Your task to perform on an android device: turn vacation reply on in the gmail app Image 0: 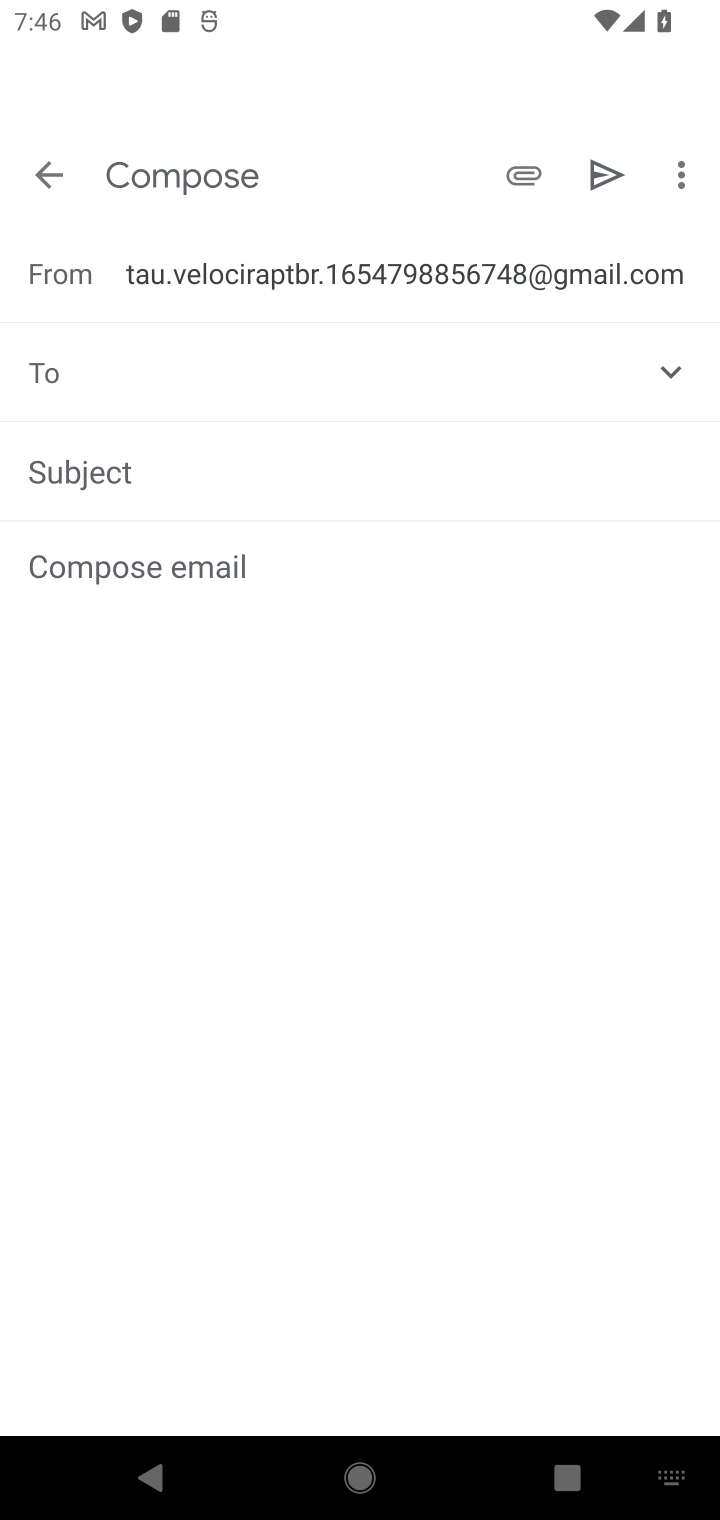
Step 0: press home button
Your task to perform on an android device: turn vacation reply on in the gmail app Image 1: 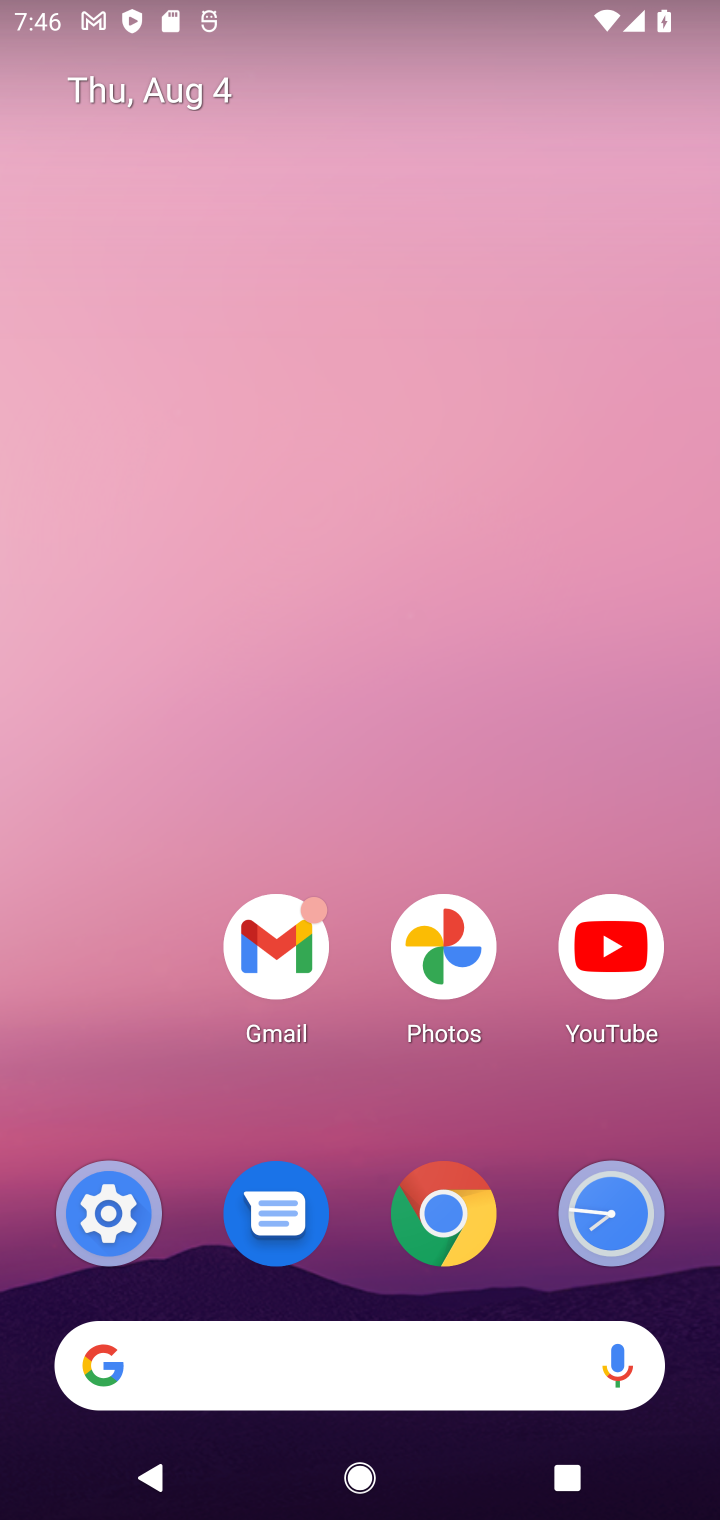
Step 1: click (97, 1197)
Your task to perform on an android device: turn vacation reply on in the gmail app Image 2: 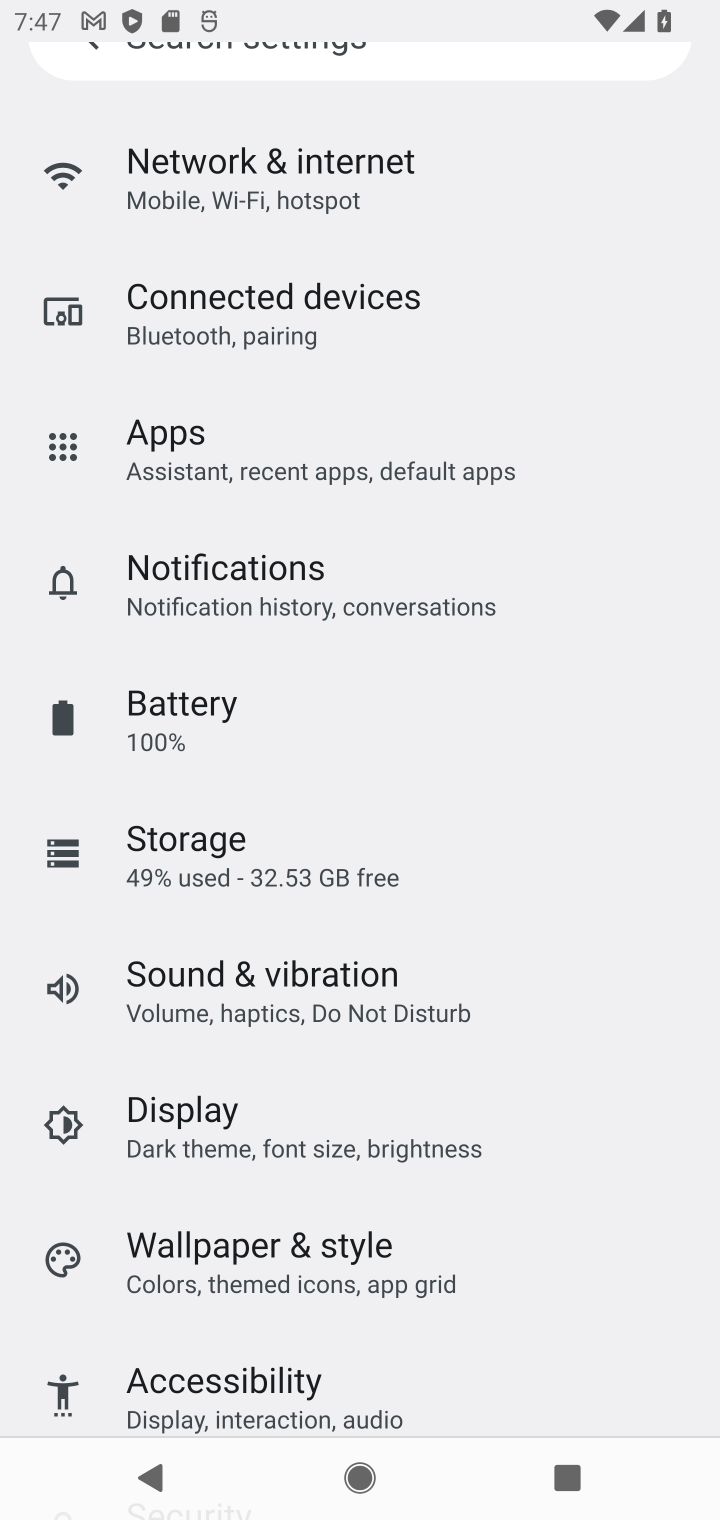
Step 2: task complete